Your task to perform on an android device: Open Google Image 0: 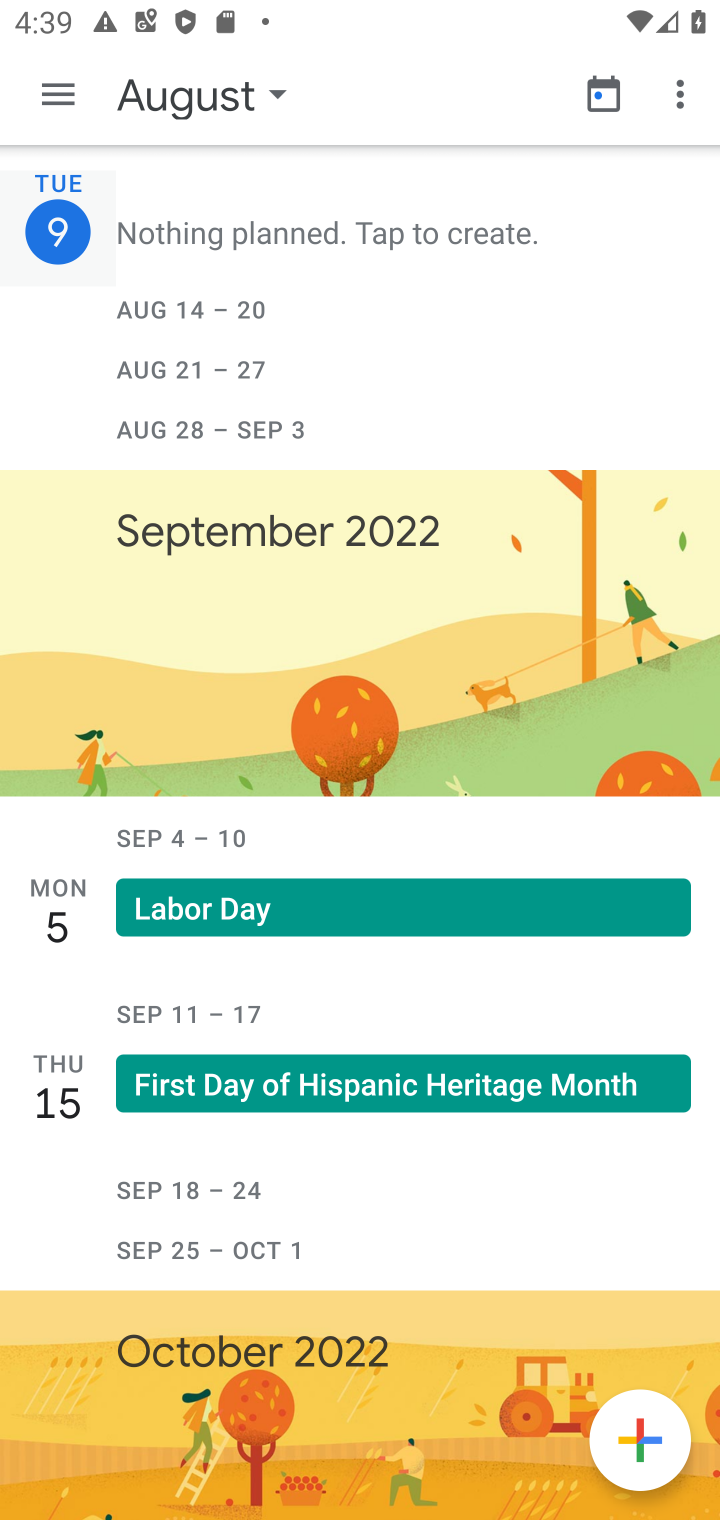
Step 0: press home button
Your task to perform on an android device: Open Google Image 1: 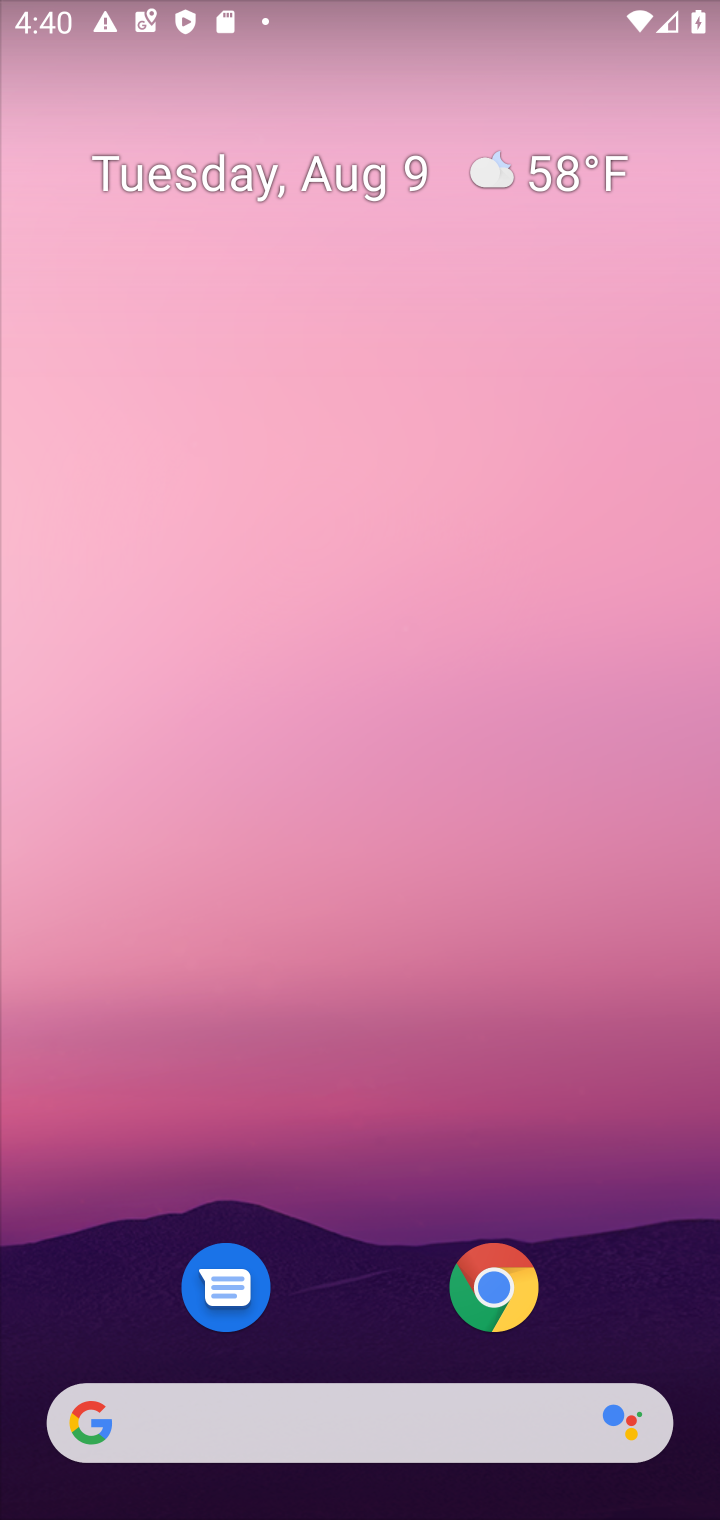
Step 1: click (377, 1447)
Your task to perform on an android device: Open Google Image 2: 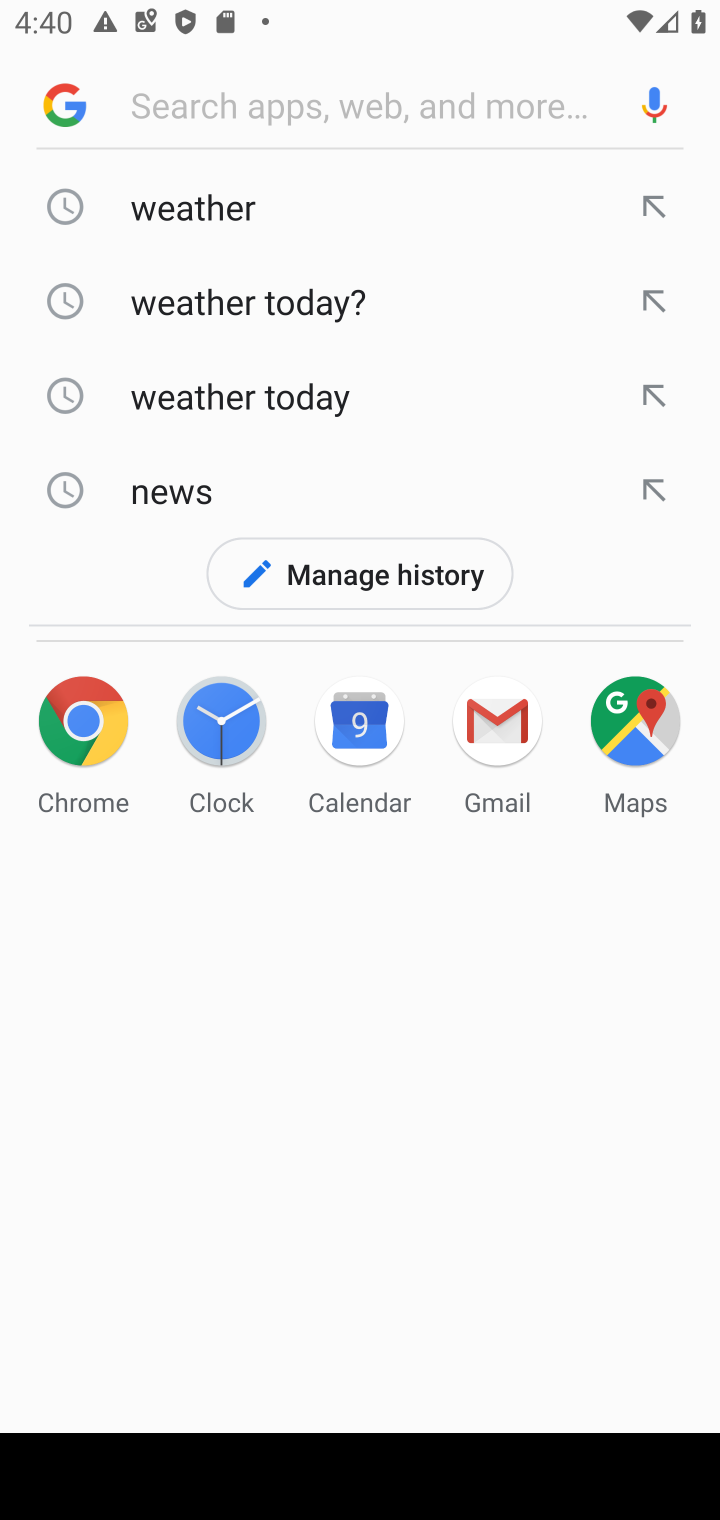
Step 2: task complete